Your task to perform on an android device: Empty the shopping cart on walmart. Search for logitech g pro on walmart, select the first entry, add it to the cart, then select checkout. Image 0: 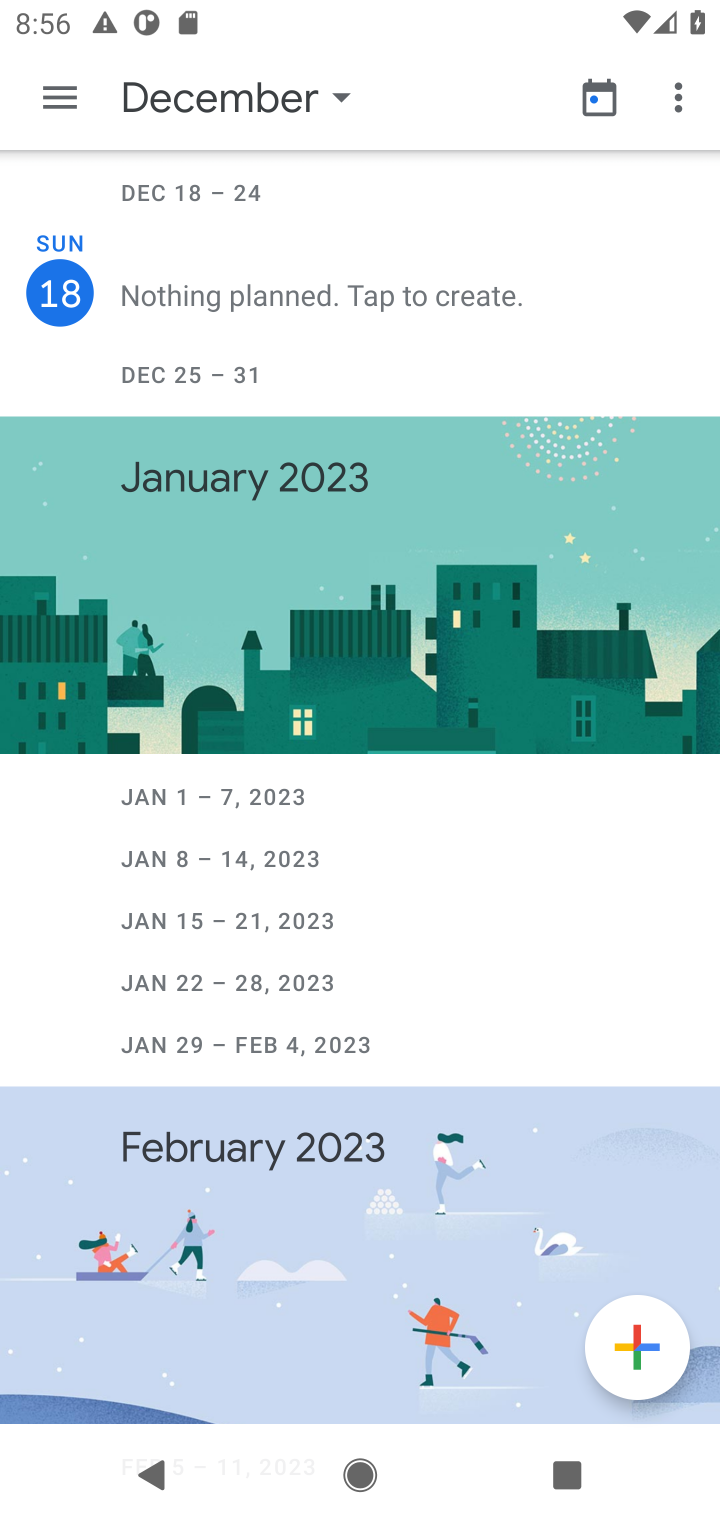
Step 0: press home button
Your task to perform on an android device: Empty the shopping cart on walmart. Search for logitech g pro on walmart, select the first entry, add it to the cart, then select checkout. Image 1: 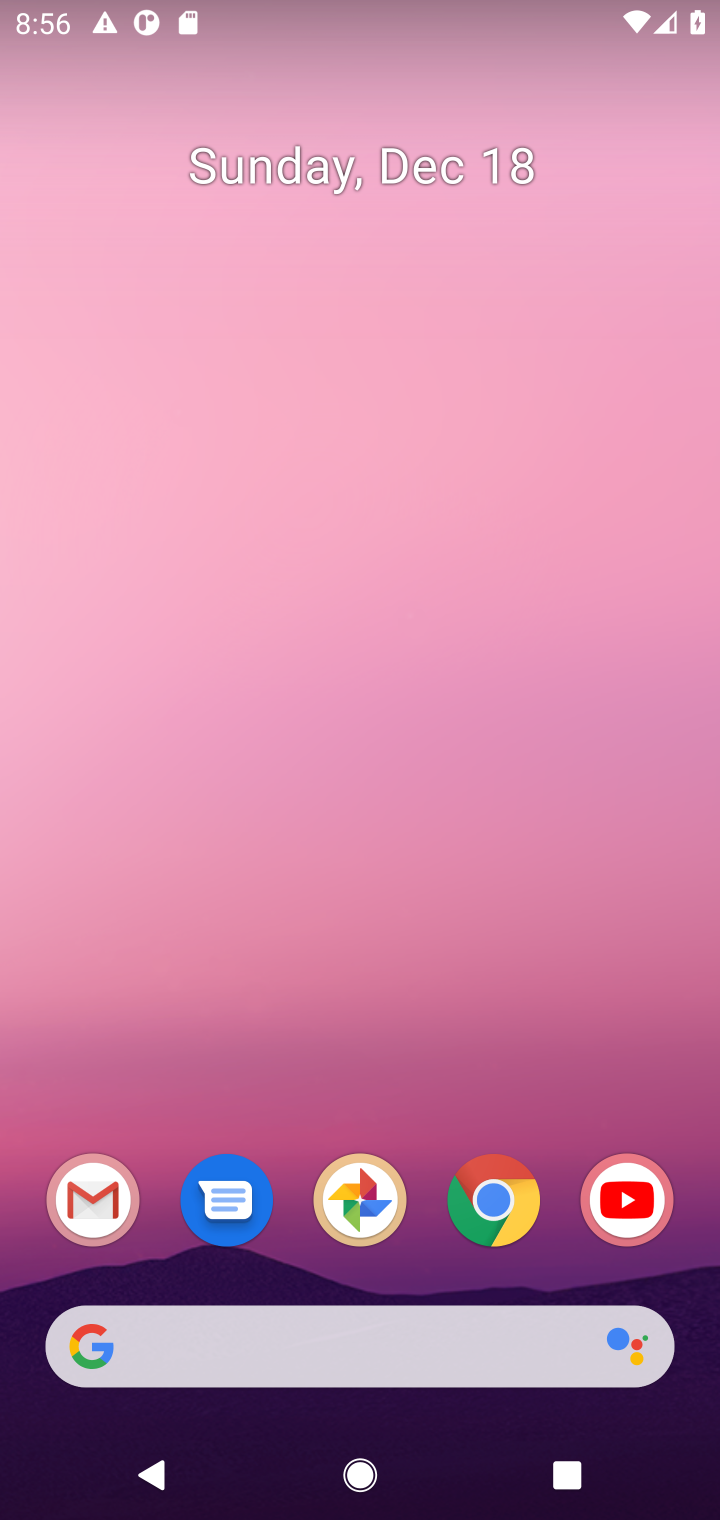
Step 1: click (498, 1198)
Your task to perform on an android device: Empty the shopping cart on walmart. Search for logitech g pro on walmart, select the first entry, add it to the cart, then select checkout. Image 2: 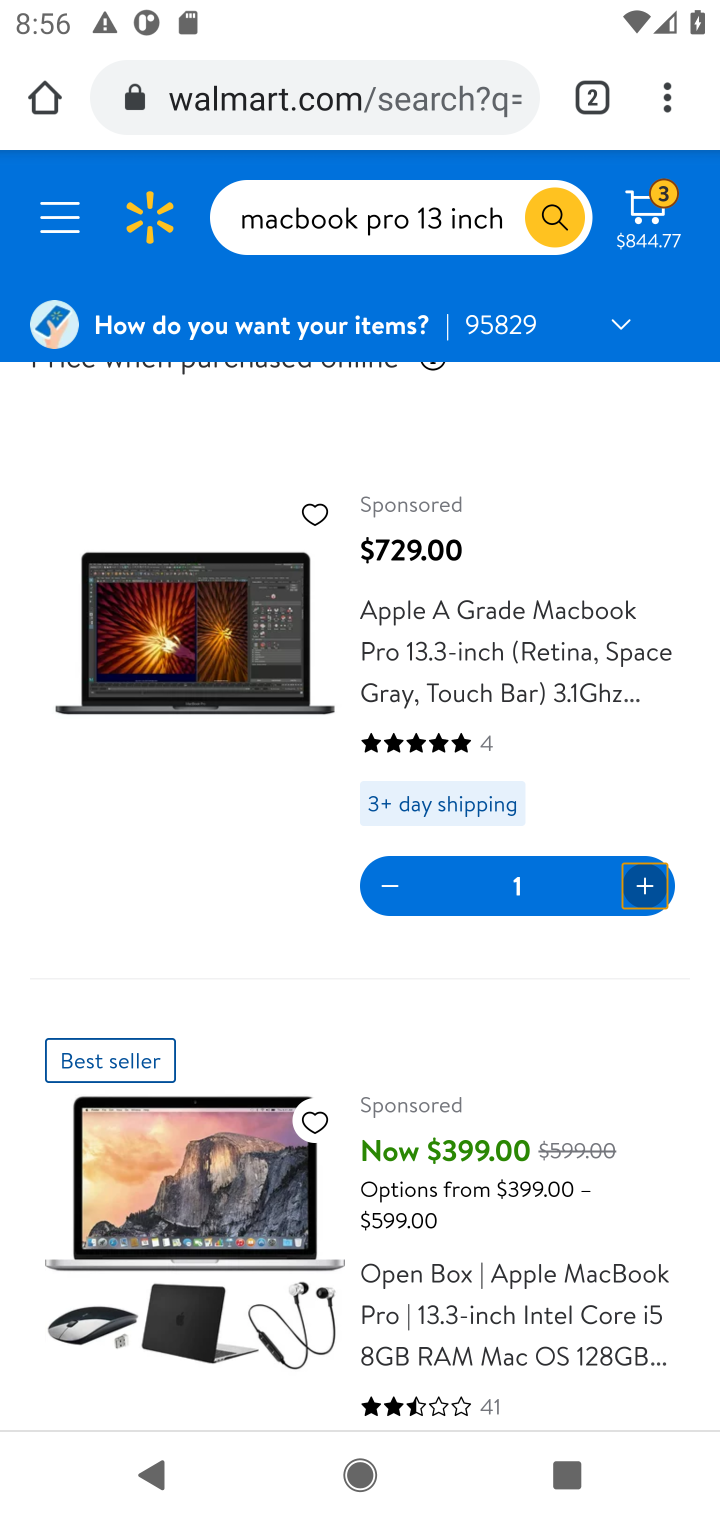
Step 2: click (638, 224)
Your task to perform on an android device: Empty the shopping cart on walmart. Search for logitech g pro on walmart, select the first entry, add it to the cart, then select checkout. Image 3: 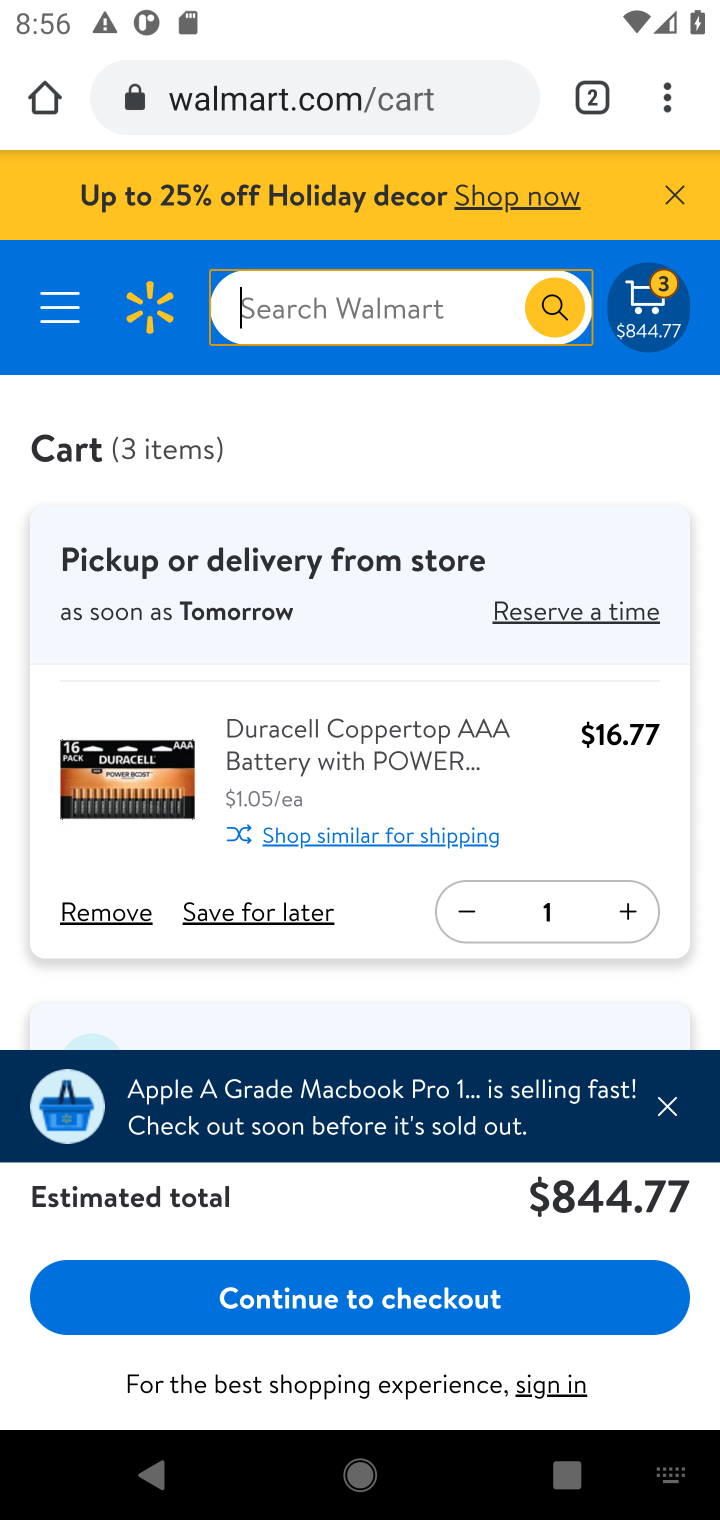
Step 3: click (103, 917)
Your task to perform on an android device: Empty the shopping cart on walmart. Search for logitech g pro on walmart, select the first entry, add it to the cart, then select checkout. Image 4: 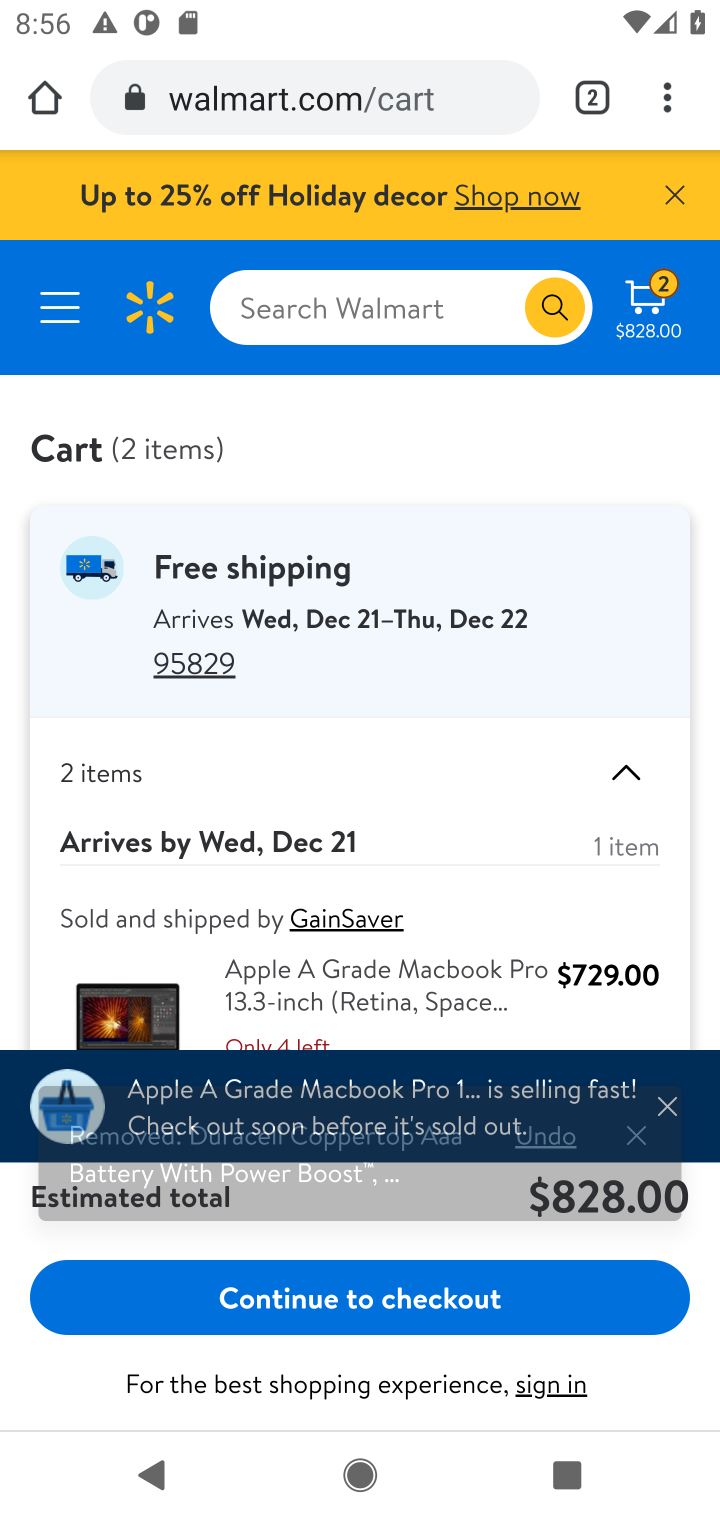
Step 4: drag from (281, 920) to (219, 471)
Your task to perform on an android device: Empty the shopping cart on walmart. Search for logitech g pro on walmart, select the first entry, add it to the cart, then select checkout. Image 5: 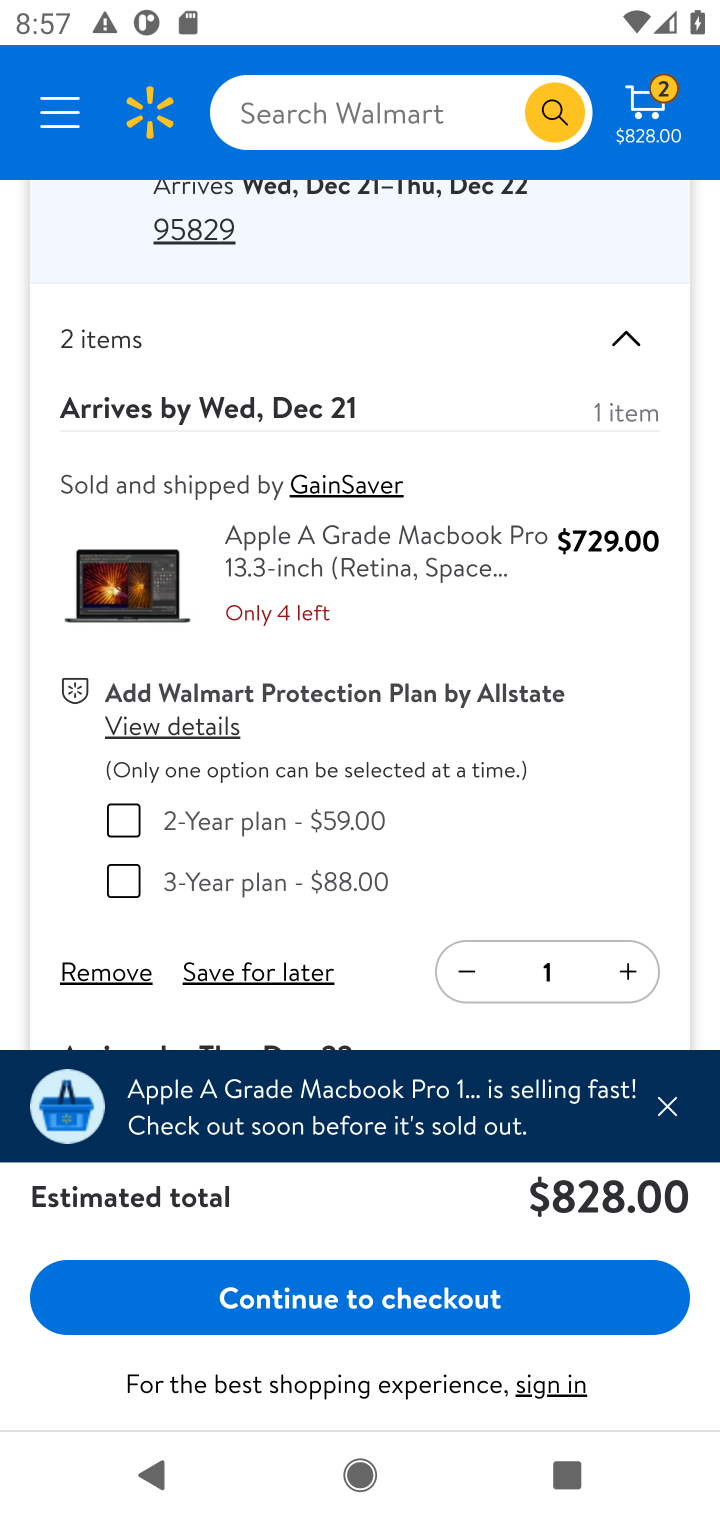
Step 5: click (73, 973)
Your task to perform on an android device: Empty the shopping cart on walmart. Search for logitech g pro on walmart, select the first entry, add it to the cart, then select checkout. Image 6: 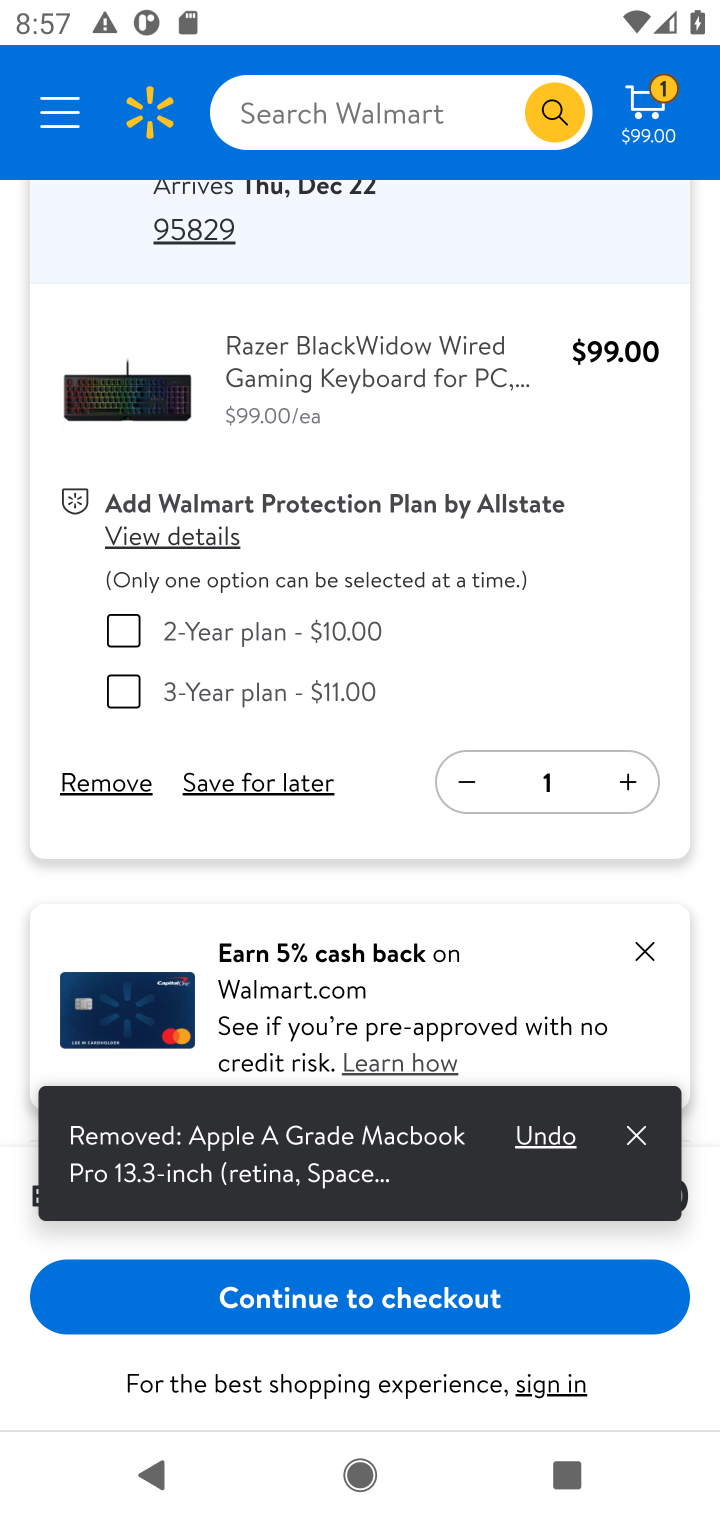
Step 6: click (85, 795)
Your task to perform on an android device: Empty the shopping cart on walmart. Search for logitech g pro on walmart, select the first entry, add it to the cart, then select checkout. Image 7: 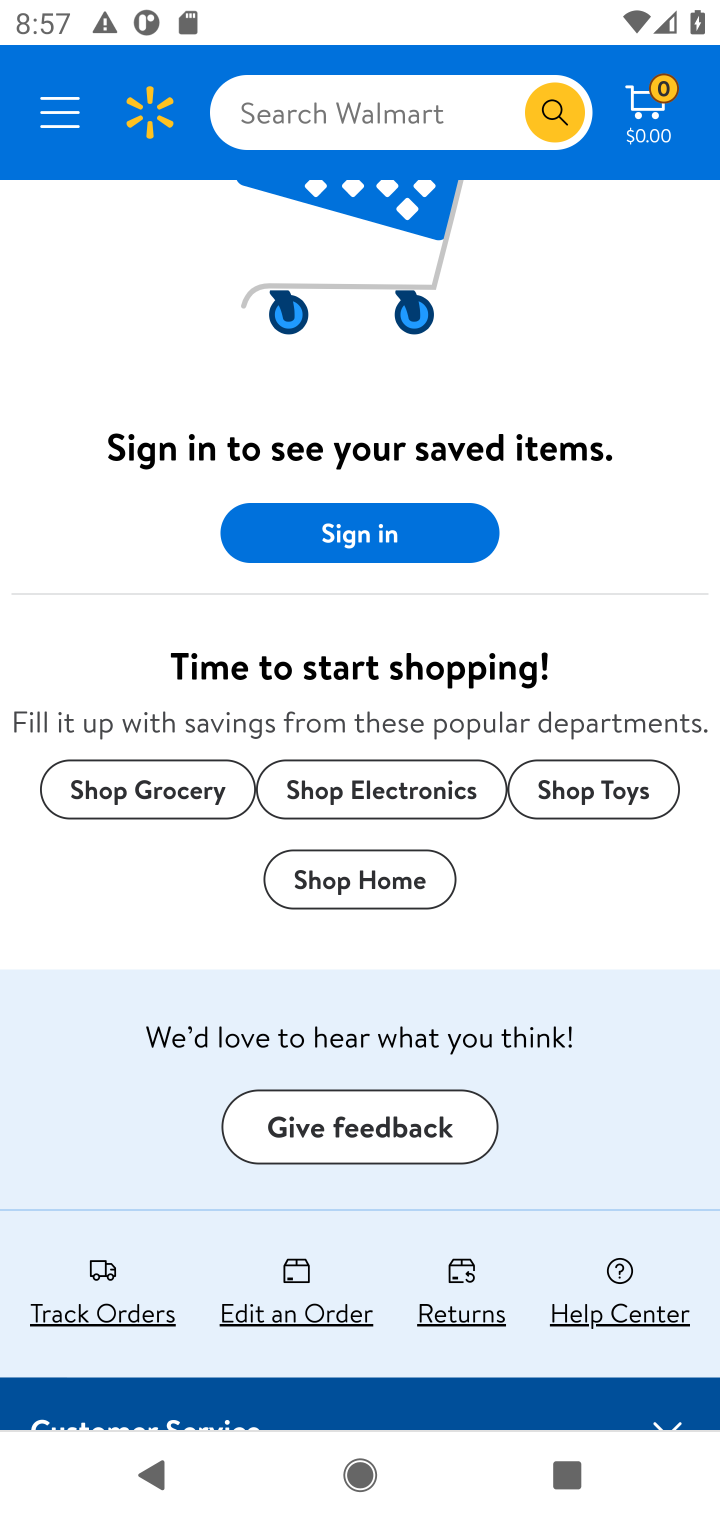
Step 7: click (322, 98)
Your task to perform on an android device: Empty the shopping cart on walmart. Search for logitech g pro on walmart, select the first entry, add it to the cart, then select checkout. Image 8: 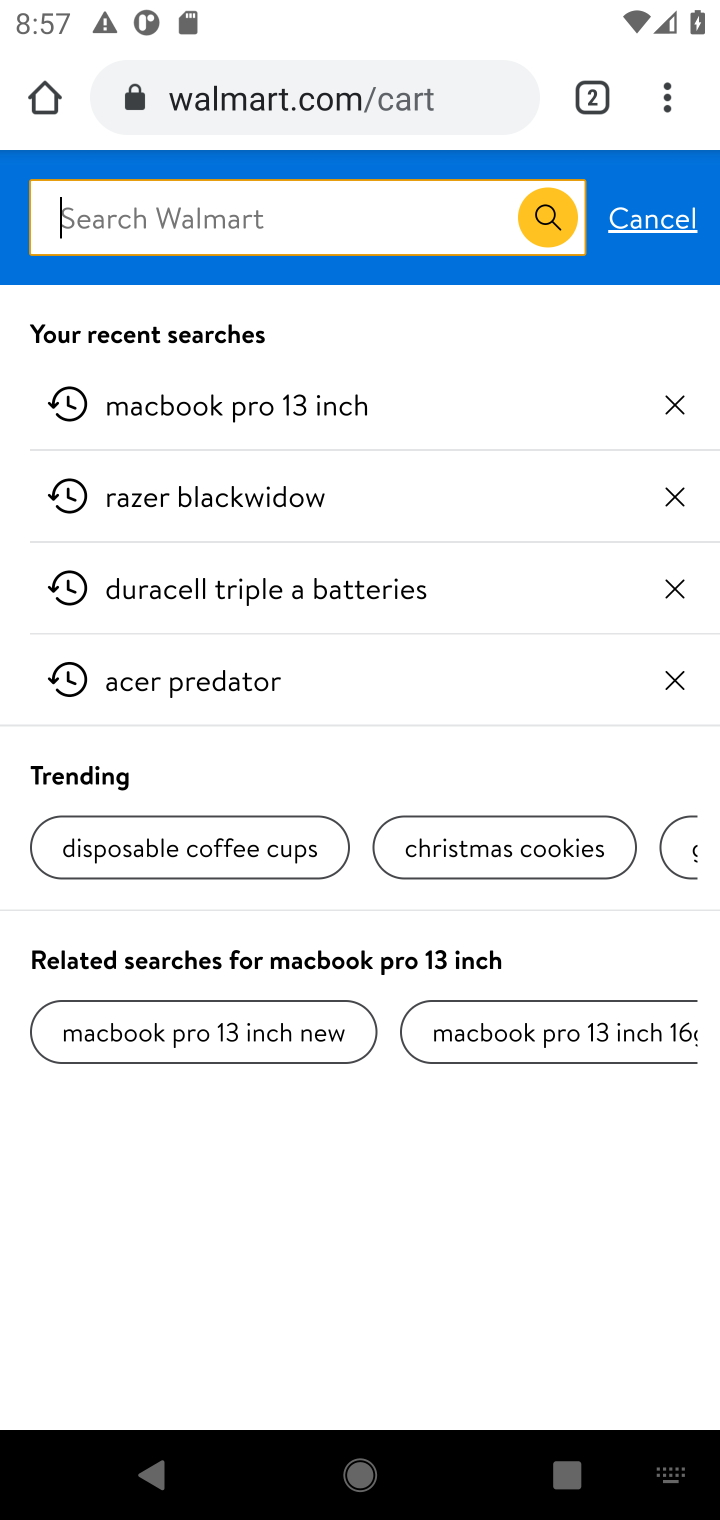
Step 8: type "logitech g pro"
Your task to perform on an android device: Empty the shopping cart on walmart. Search for logitech g pro on walmart, select the first entry, add it to the cart, then select checkout. Image 9: 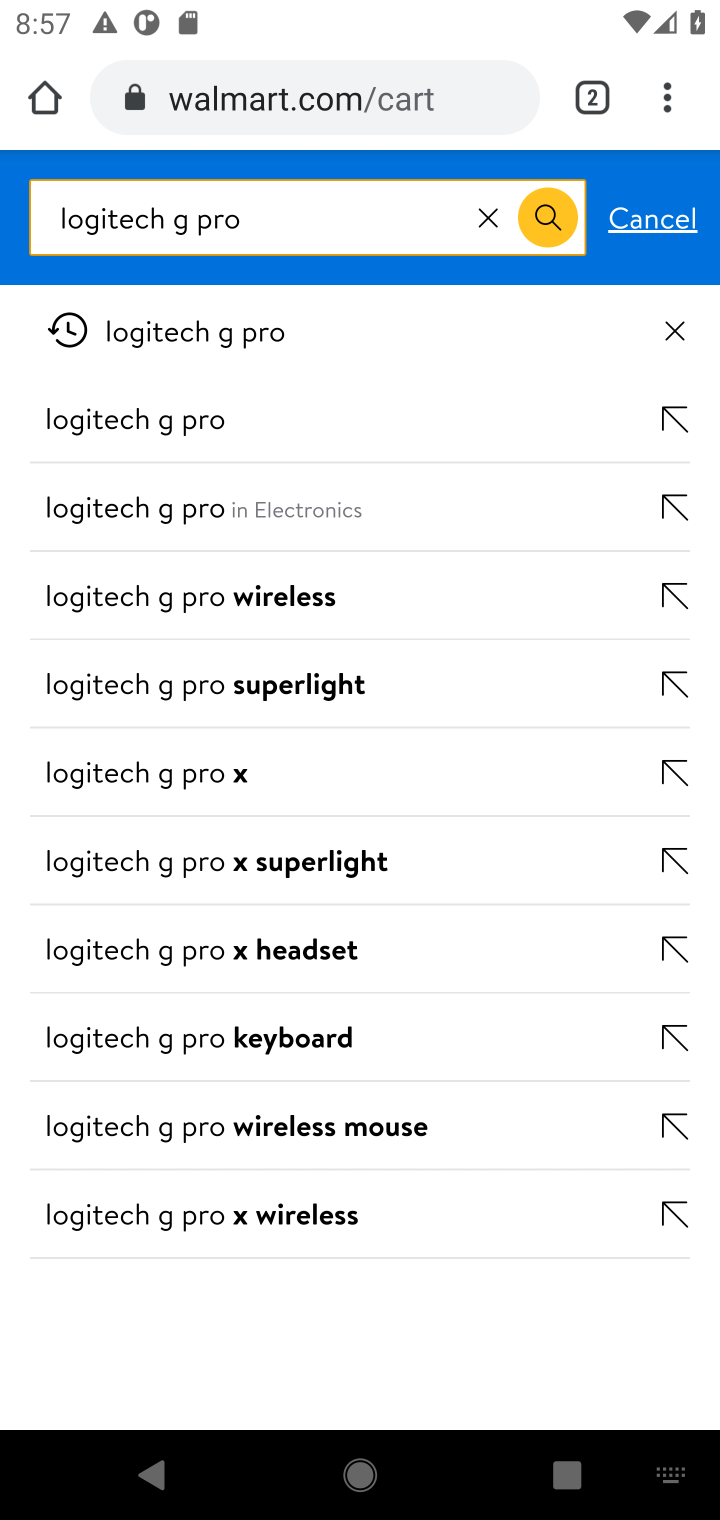
Step 9: click (213, 338)
Your task to perform on an android device: Empty the shopping cart on walmart. Search for logitech g pro on walmart, select the first entry, add it to the cart, then select checkout. Image 10: 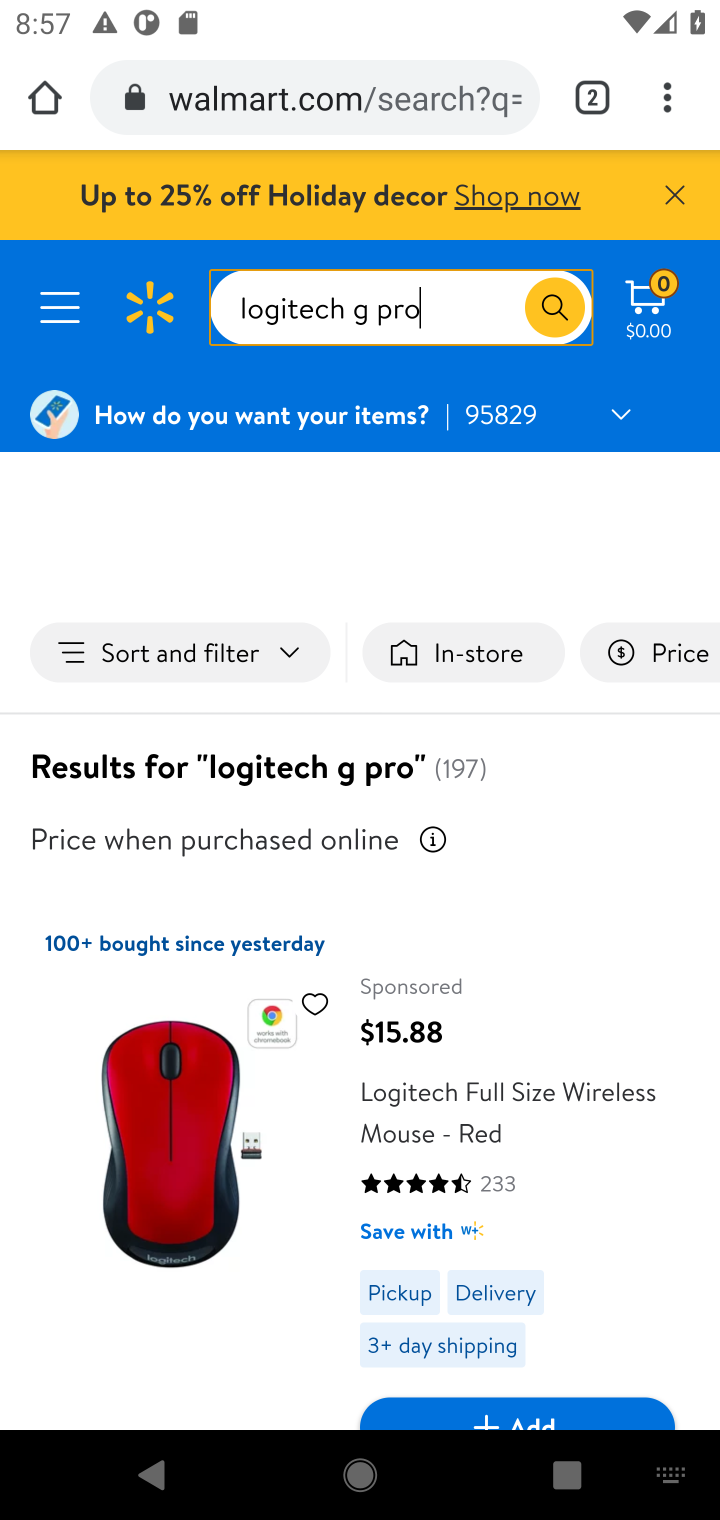
Step 10: task complete